Your task to perform on an android device: Clear all items from cart on costco.com. Search for asus rog on costco.com, select the first entry, and add it to the cart. Image 0: 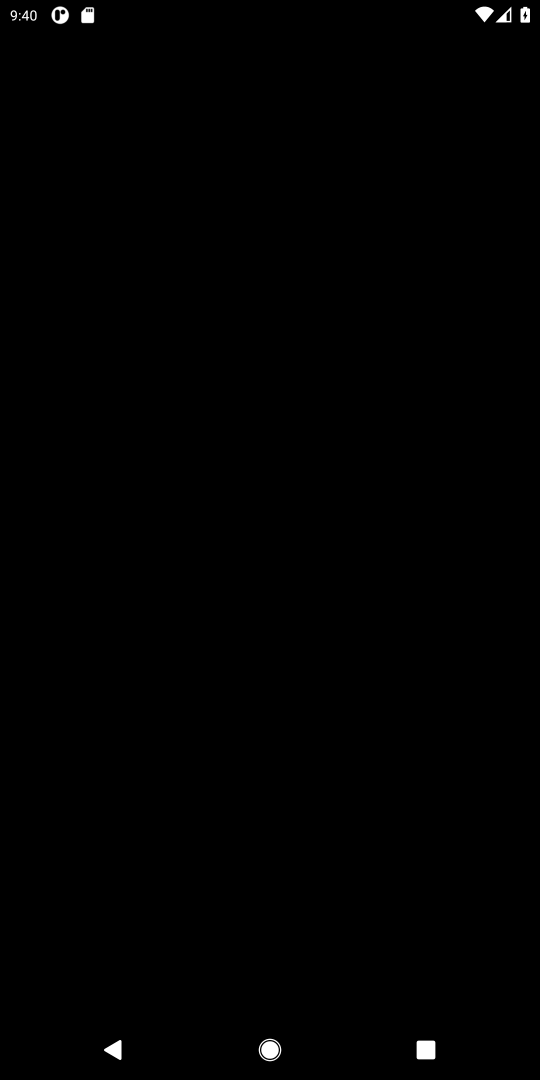
Step 0: press home button
Your task to perform on an android device: Clear all items from cart on costco.com. Search for asus rog on costco.com, select the first entry, and add it to the cart. Image 1: 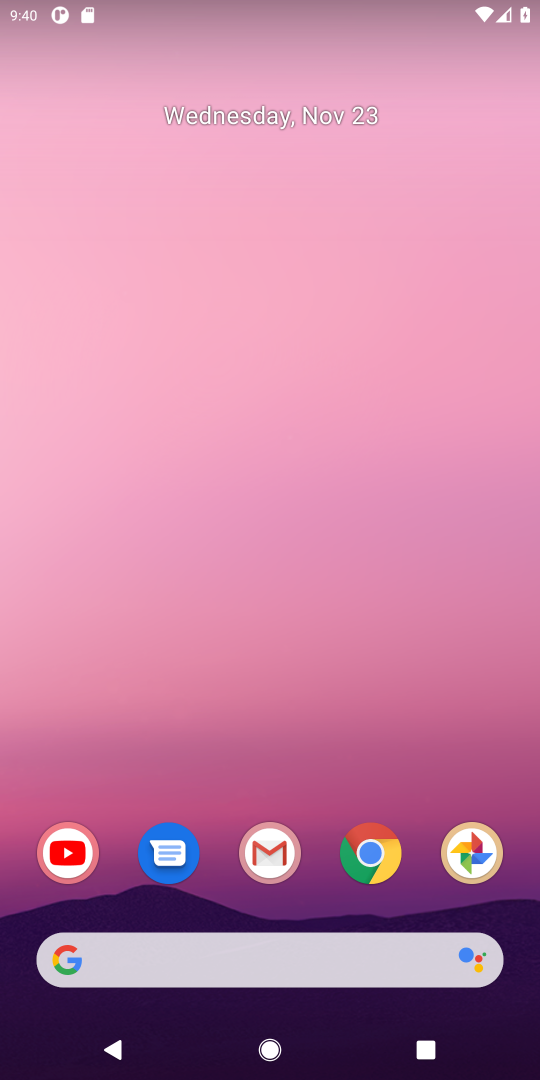
Step 1: click (370, 855)
Your task to perform on an android device: Clear all items from cart on costco.com. Search for asus rog on costco.com, select the first entry, and add it to the cart. Image 2: 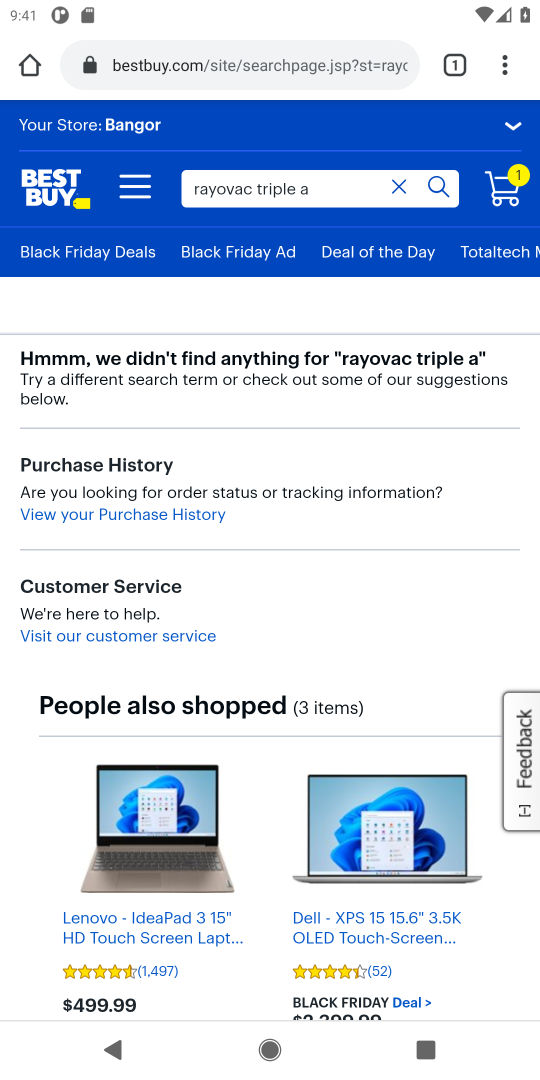
Step 2: click (220, 65)
Your task to perform on an android device: Clear all items from cart on costco.com. Search for asus rog on costco.com, select the first entry, and add it to the cart. Image 3: 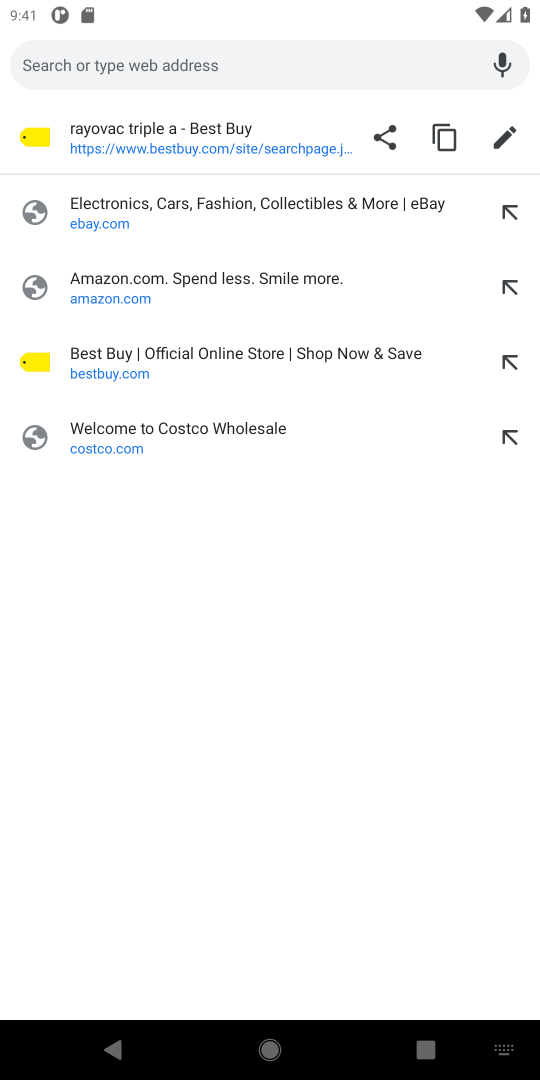
Step 3: click (112, 439)
Your task to perform on an android device: Clear all items from cart on costco.com. Search for asus rog on costco.com, select the first entry, and add it to the cart. Image 4: 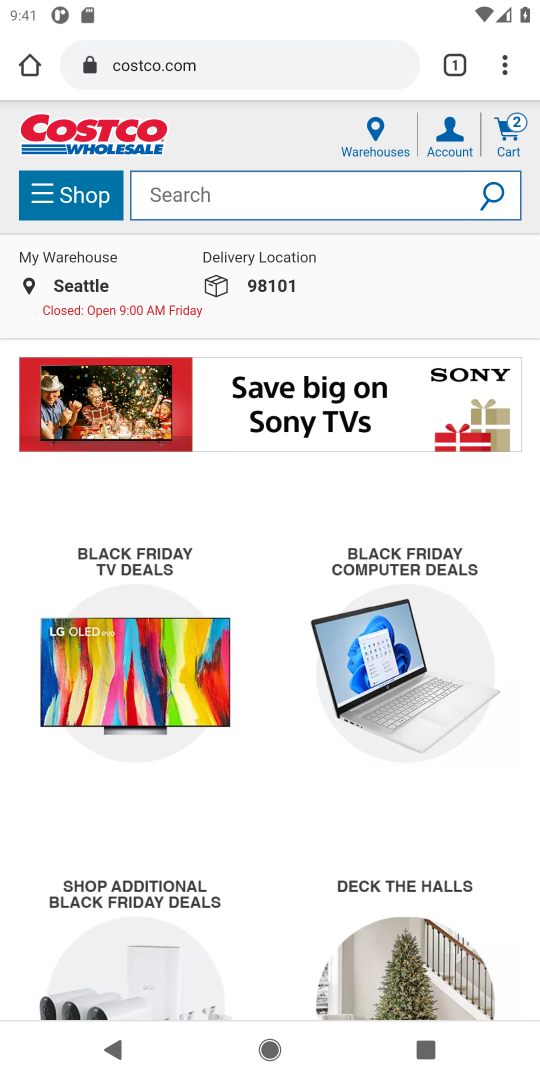
Step 4: click (511, 130)
Your task to perform on an android device: Clear all items from cart on costco.com. Search for asus rog on costco.com, select the first entry, and add it to the cart. Image 5: 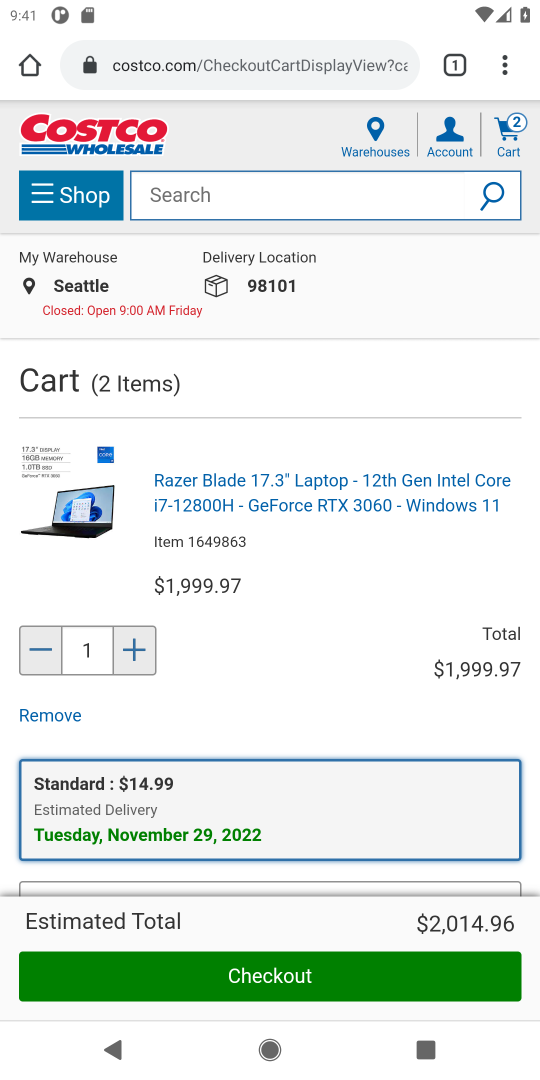
Step 5: drag from (259, 617) to (275, 248)
Your task to perform on an android device: Clear all items from cart on costco.com. Search for asus rog on costco.com, select the first entry, and add it to the cart. Image 6: 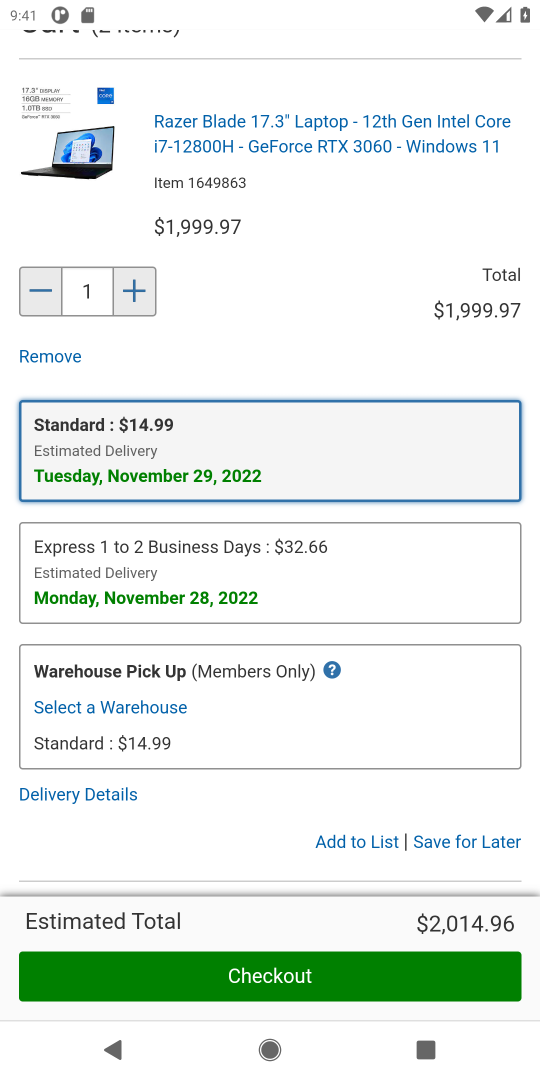
Step 6: drag from (334, 647) to (344, 402)
Your task to perform on an android device: Clear all items from cart on costco.com. Search for asus rog on costco.com, select the first entry, and add it to the cart. Image 7: 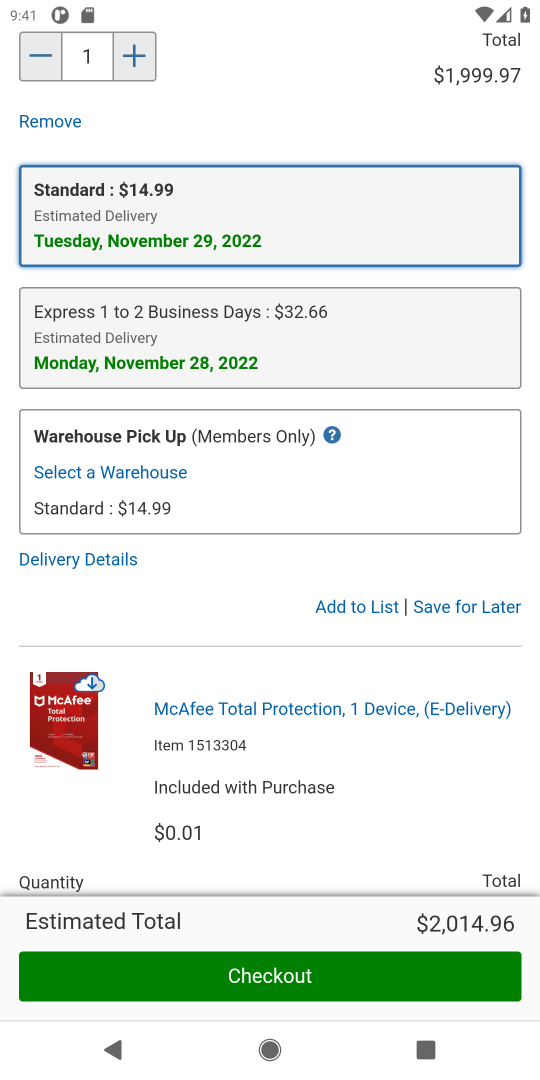
Step 7: click (465, 612)
Your task to perform on an android device: Clear all items from cart on costco.com. Search for asus rog on costco.com, select the first entry, and add it to the cart. Image 8: 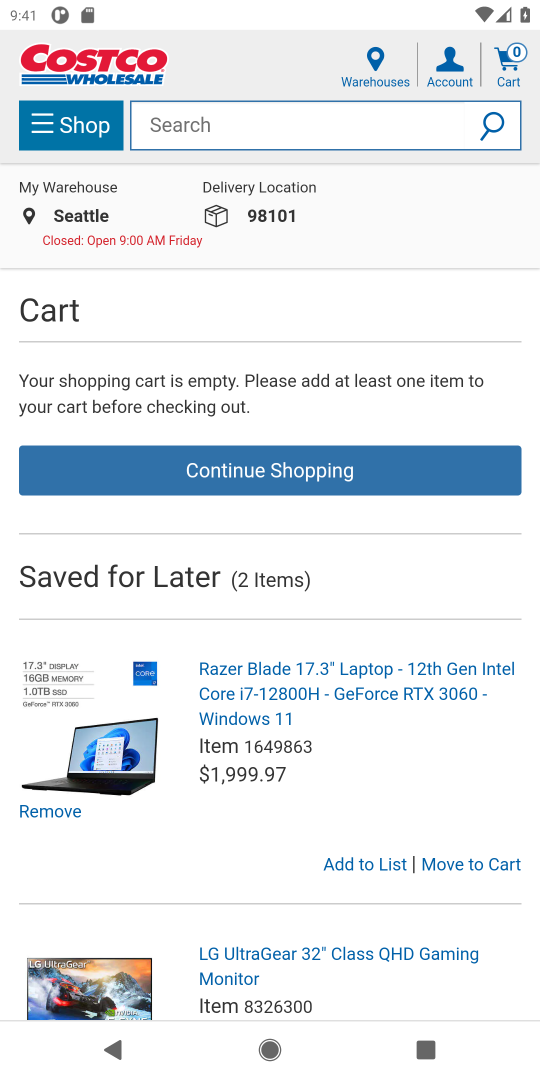
Step 8: click (301, 124)
Your task to perform on an android device: Clear all items from cart on costco.com. Search for asus rog on costco.com, select the first entry, and add it to the cart. Image 9: 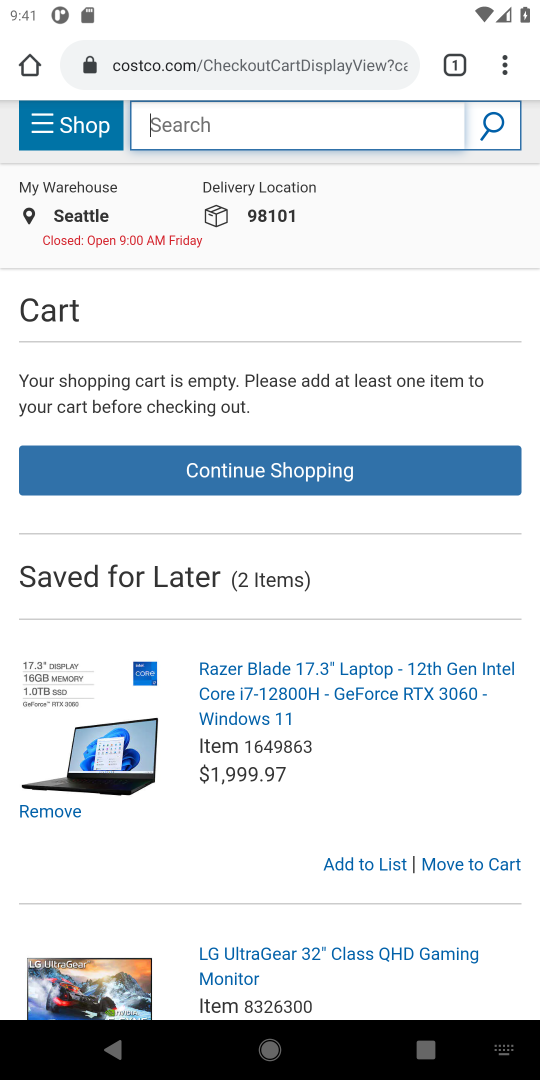
Step 9: type "asus rog"
Your task to perform on an android device: Clear all items from cart on costco.com. Search for asus rog on costco.com, select the first entry, and add it to the cart. Image 10: 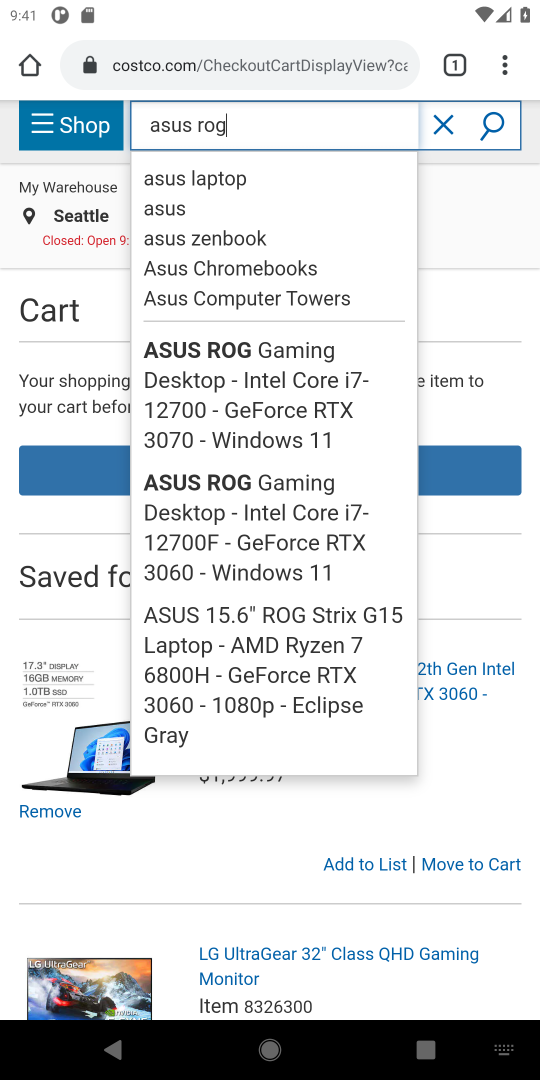
Step 10: click (492, 136)
Your task to perform on an android device: Clear all items from cart on costco.com. Search for asus rog on costco.com, select the first entry, and add it to the cart. Image 11: 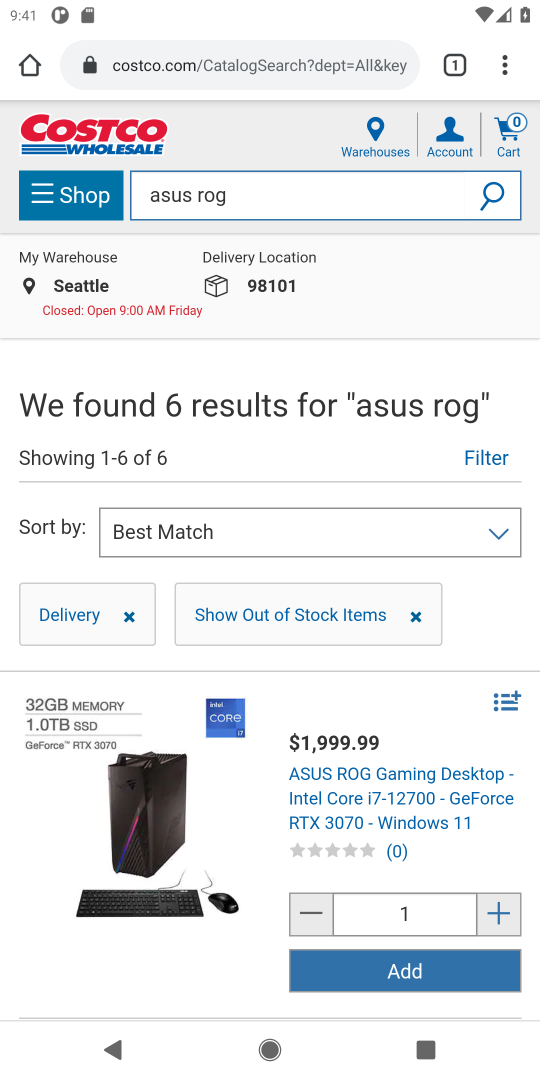
Step 11: drag from (202, 814) to (203, 514)
Your task to perform on an android device: Clear all items from cart on costco.com. Search for asus rog on costco.com, select the first entry, and add it to the cart. Image 12: 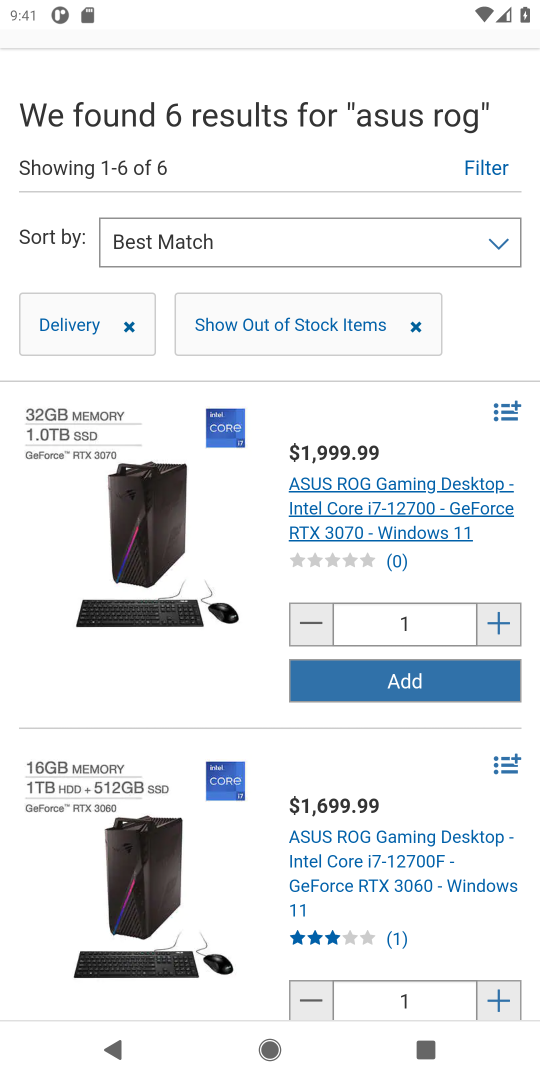
Step 12: click (409, 683)
Your task to perform on an android device: Clear all items from cart on costco.com. Search for asus rog on costco.com, select the first entry, and add it to the cart. Image 13: 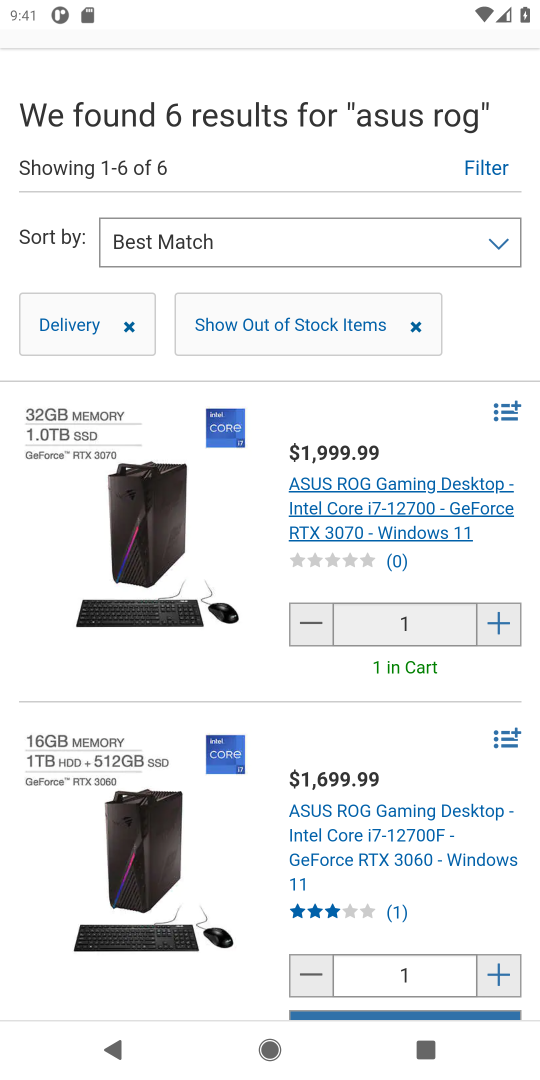
Step 13: task complete